Your task to perform on an android device: Go to CNN.com Image 0: 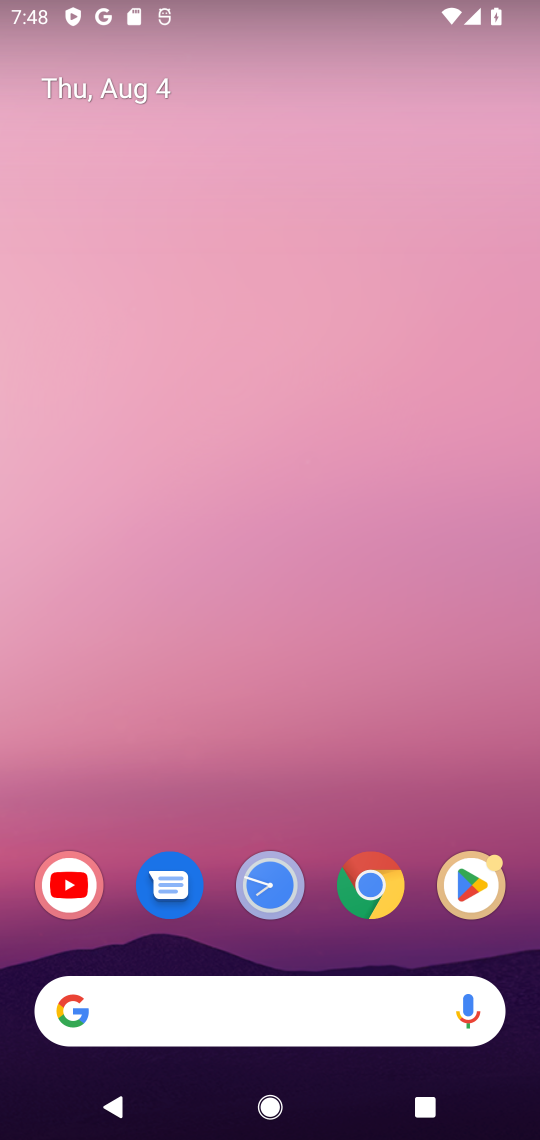
Step 0: press home button
Your task to perform on an android device: Go to CNN.com Image 1: 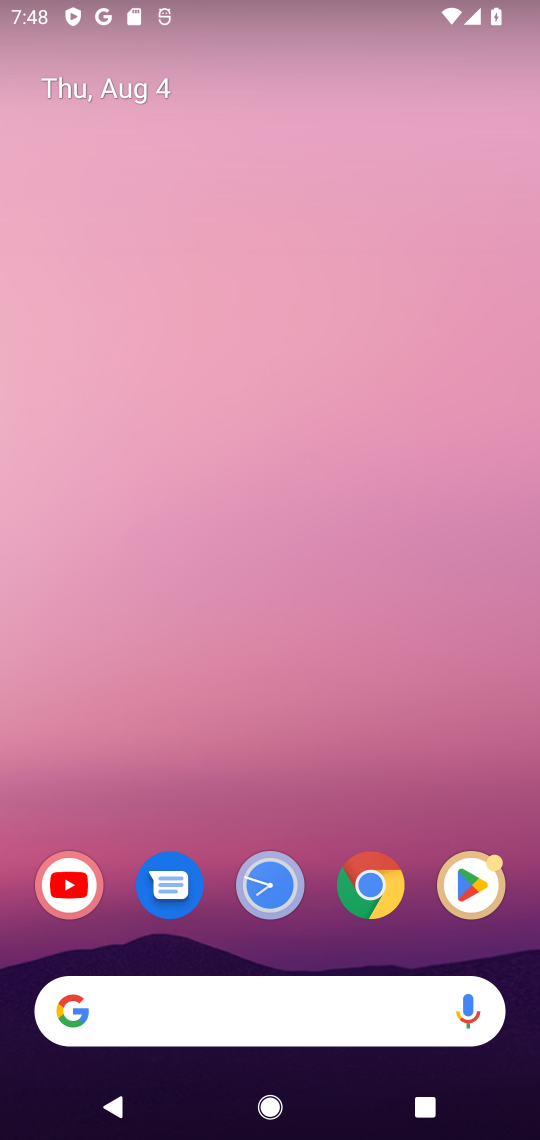
Step 1: click (364, 873)
Your task to perform on an android device: Go to CNN.com Image 2: 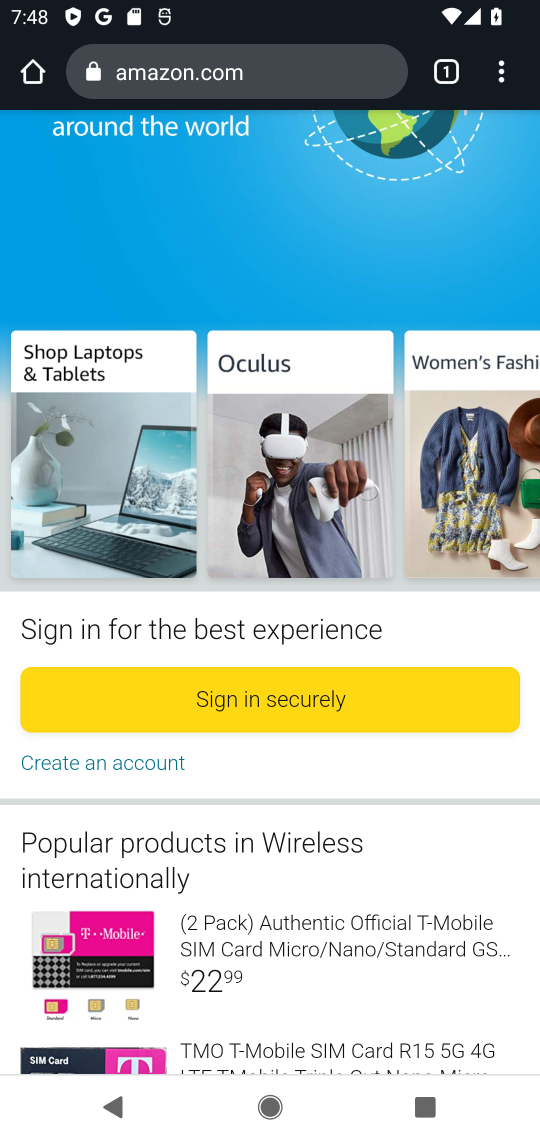
Step 2: click (452, 65)
Your task to perform on an android device: Go to CNN.com Image 3: 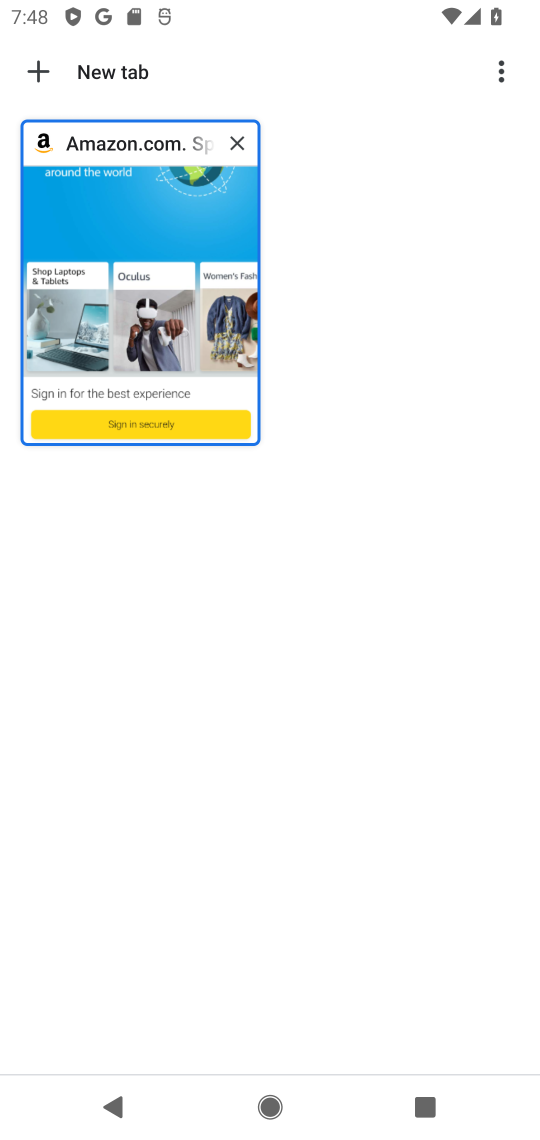
Step 3: click (36, 71)
Your task to perform on an android device: Go to CNN.com Image 4: 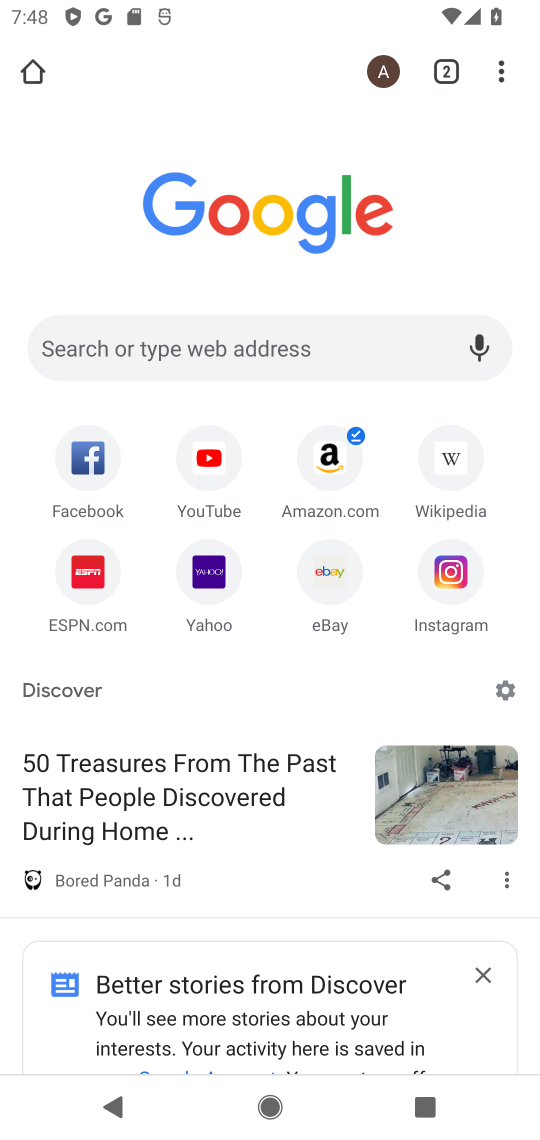
Step 4: click (181, 337)
Your task to perform on an android device: Go to CNN.com Image 5: 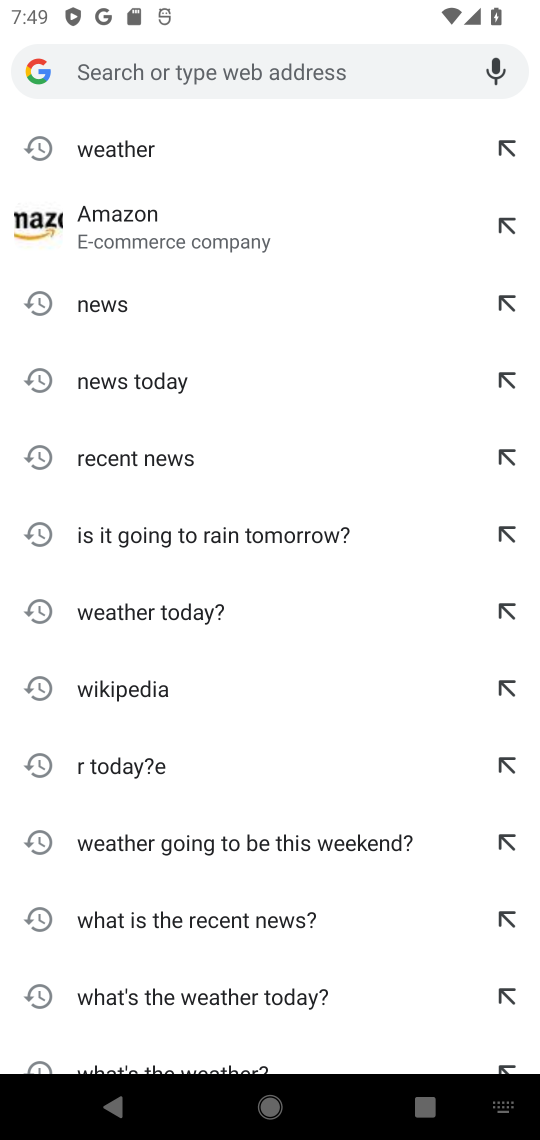
Step 5: type "cnn.com"
Your task to perform on an android device: Go to CNN.com Image 6: 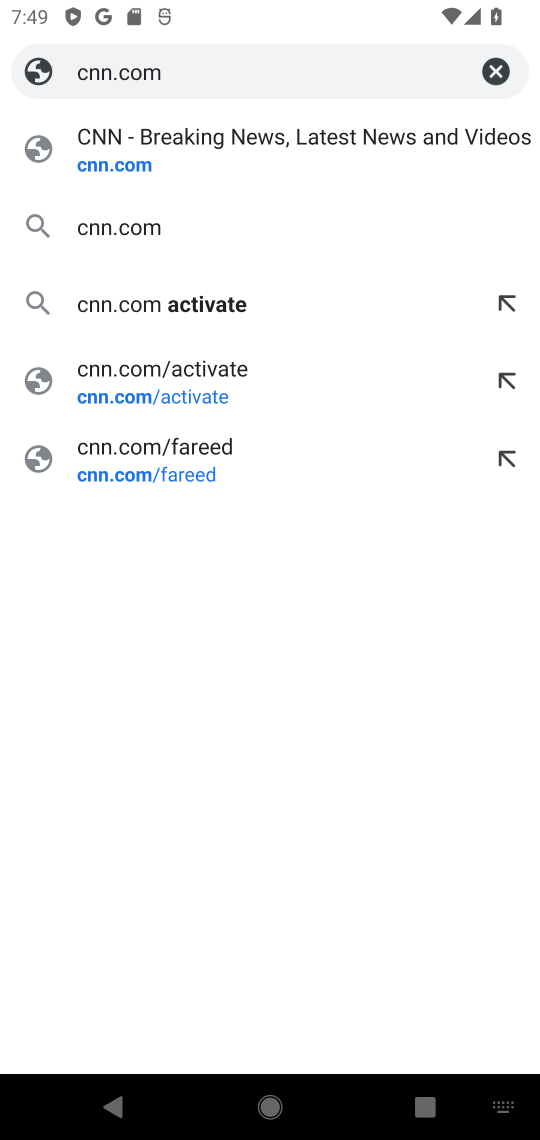
Step 6: click (147, 164)
Your task to perform on an android device: Go to CNN.com Image 7: 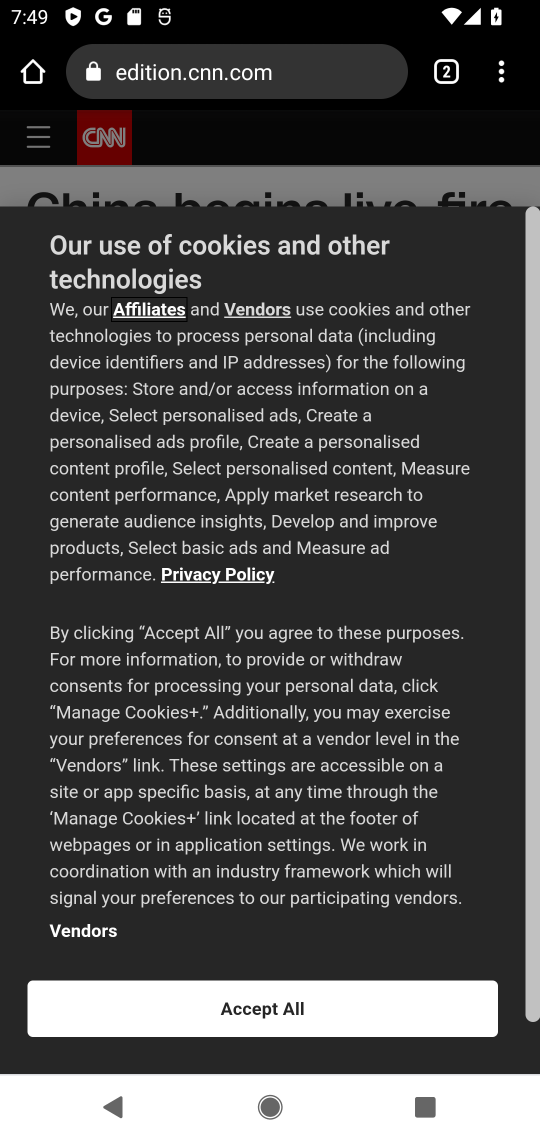
Step 7: click (276, 1032)
Your task to perform on an android device: Go to CNN.com Image 8: 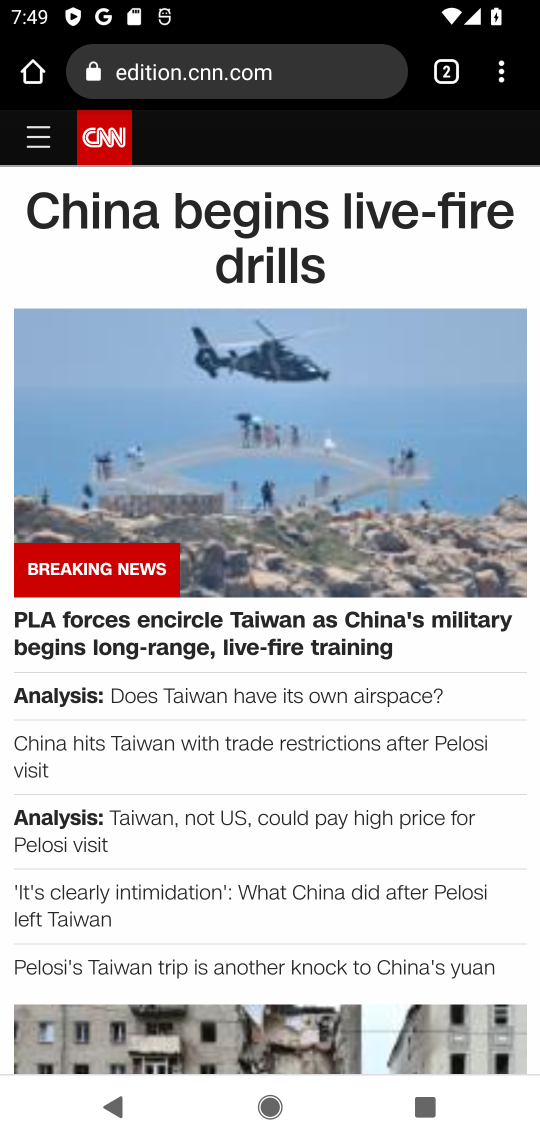
Step 8: task complete